Your task to perform on an android device: open device folders in google photos Image 0: 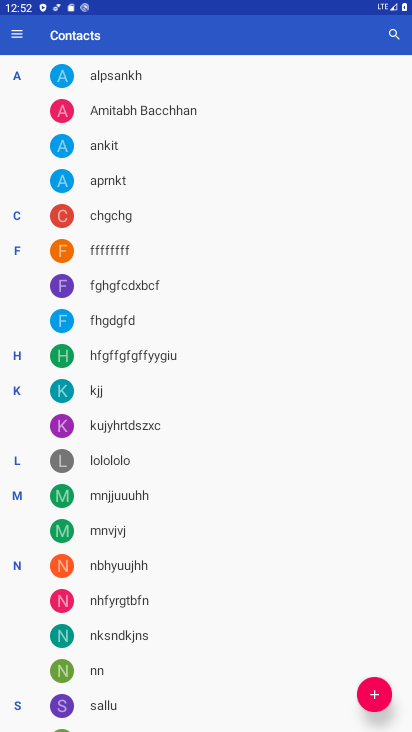
Step 0: press home button
Your task to perform on an android device: open device folders in google photos Image 1: 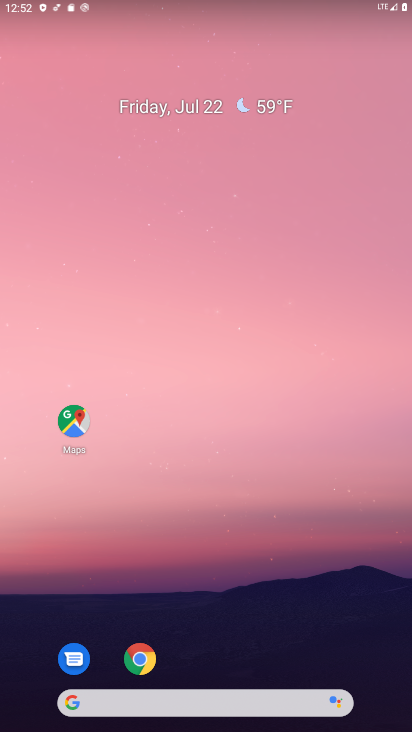
Step 1: drag from (188, 653) to (191, 179)
Your task to perform on an android device: open device folders in google photos Image 2: 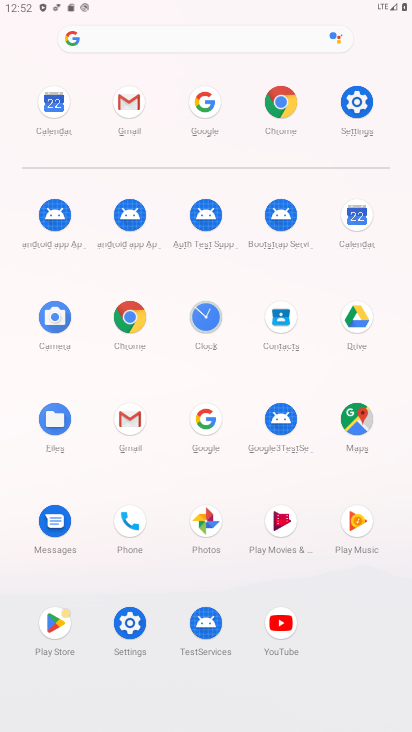
Step 2: click (221, 532)
Your task to perform on an android device: open device folders in google photos Image 3: 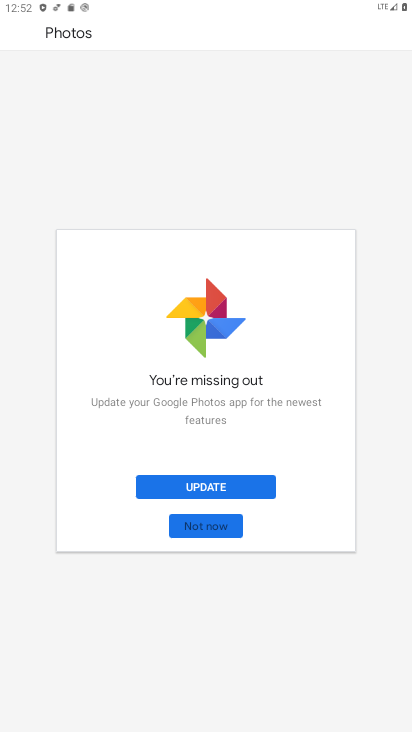
Step 3: click (182, 525)
Your task to perform on an android device: open device folders in google photos Image 4: 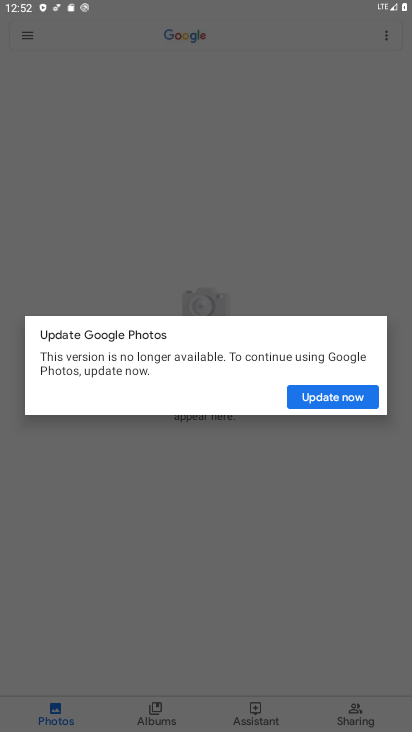
Step 4: click (317, 400)
Your task to perform on an android device: open device folders in google photos Image 5: 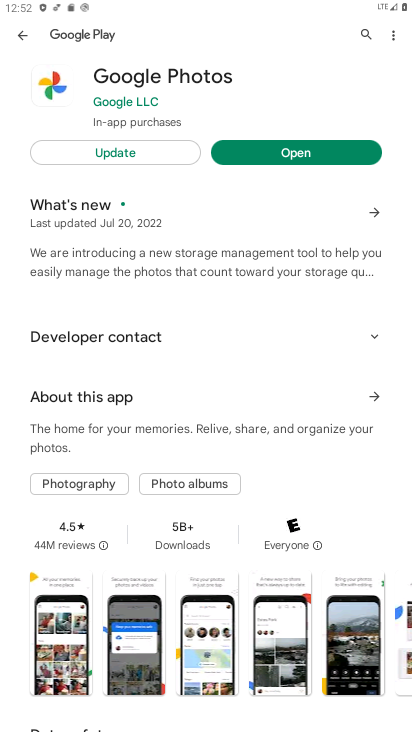
Step 5: click (252, 151)
Your task to perform on an android device: open device folders in google photos Image 6: 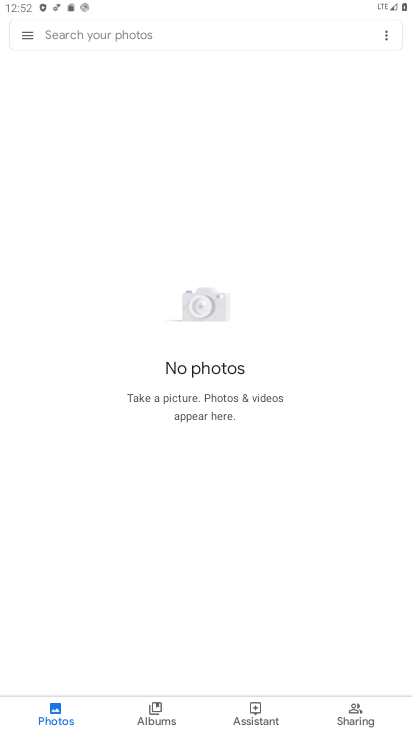
Step 6: click (30, 38)
Your task to perform on an android device: open device folders in google photos Image 7: 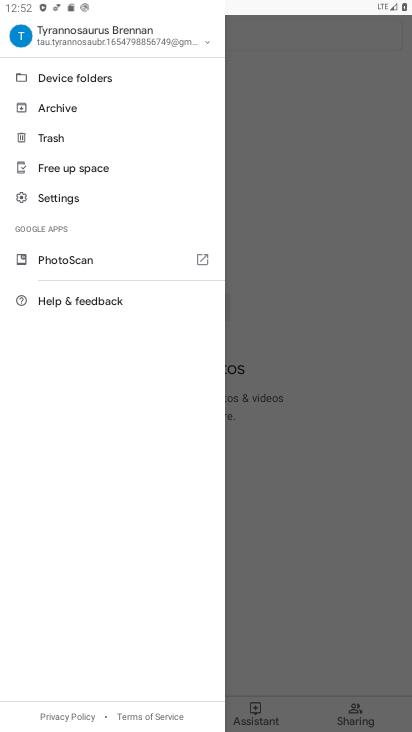
Step 7: click (56, 88)
Your task to perform on an android device: open device folders in google photos Image 8: 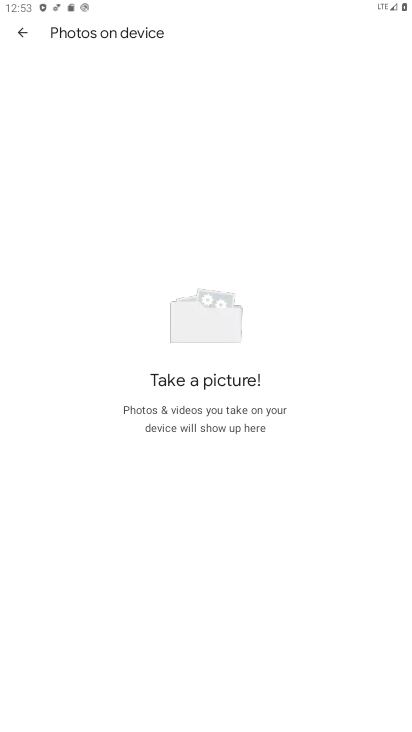
Step 8: task complete